Your task to perform on an android device: toggle priority inbox in the gmail app Image 0: 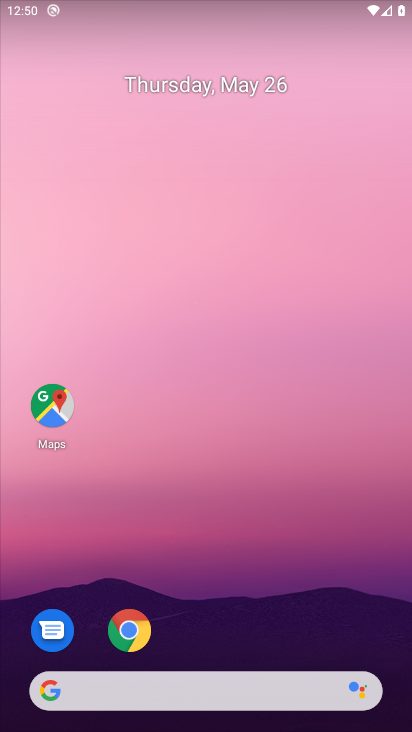
Step 0: press home button
Your task to perform on an android device: toggle priority inbox in the gmail app Image 1: 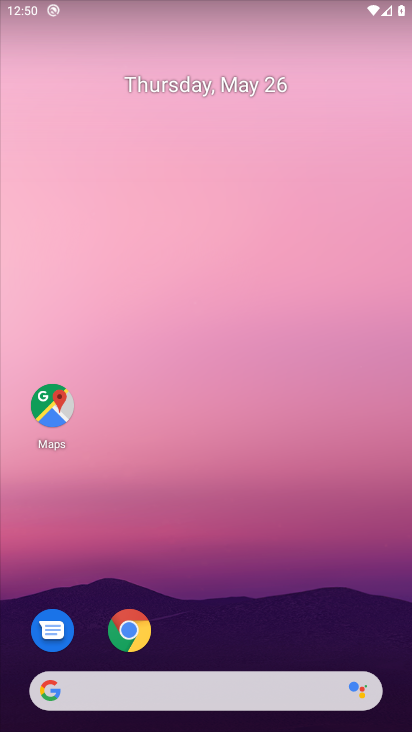
Step 1: drag from (228, 599) to (225, 7)
Your task to perform on an android device: toggle priority inbox in the gmail app Image 2: 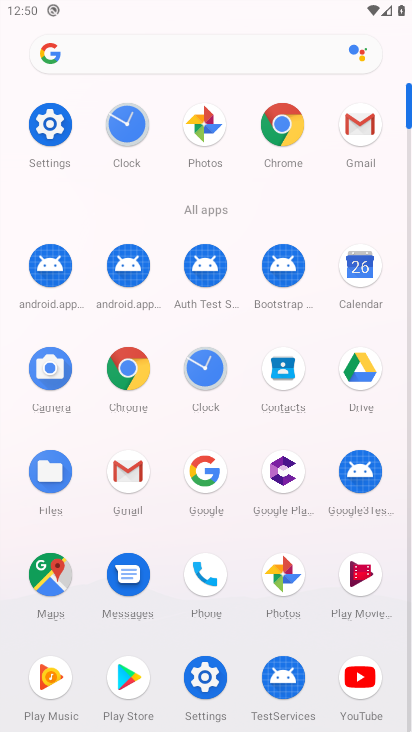
Step 2: click (349, 137)
Your task to perform on an android device: toggle priority inbox in the gmail app Image 3: 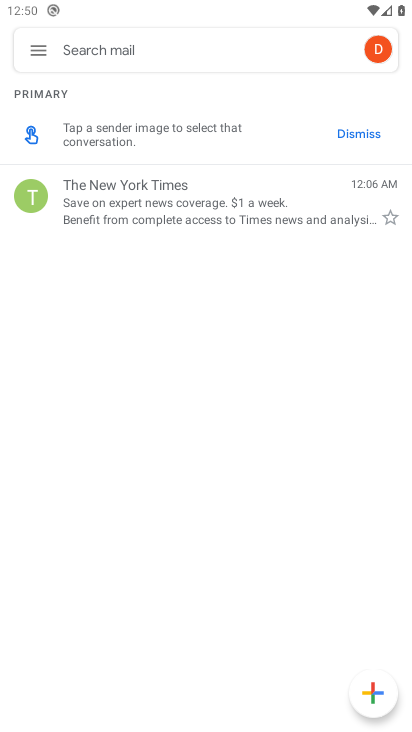
Step 3: click (39, 54)
Your task to perform on an android device: toggle priority inbox in the gmail app Image 4: 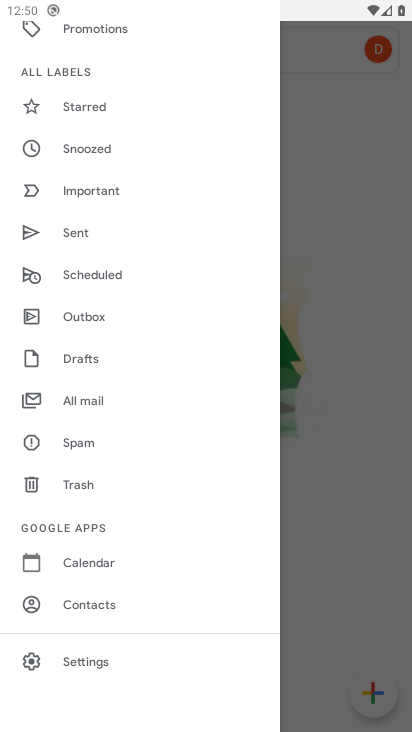
Step 4: click (90, 662)
Your task to perform on an android device: toggle priority inbox in the gmail app Image 5: 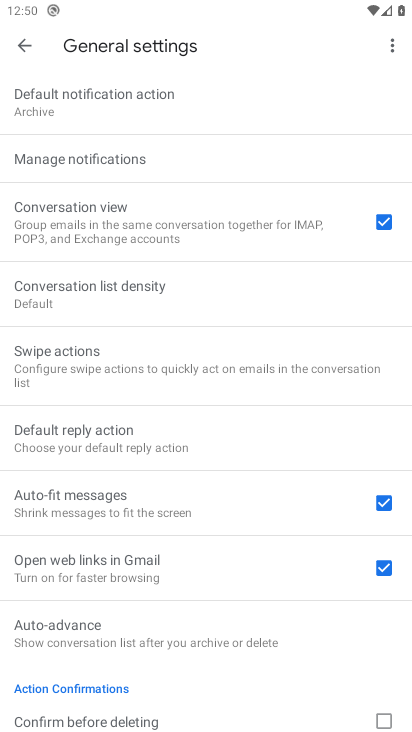
Step 5: click (24, 40)
Your task to perform on an android device: toggle priority inbox in the gmail app Image 6: 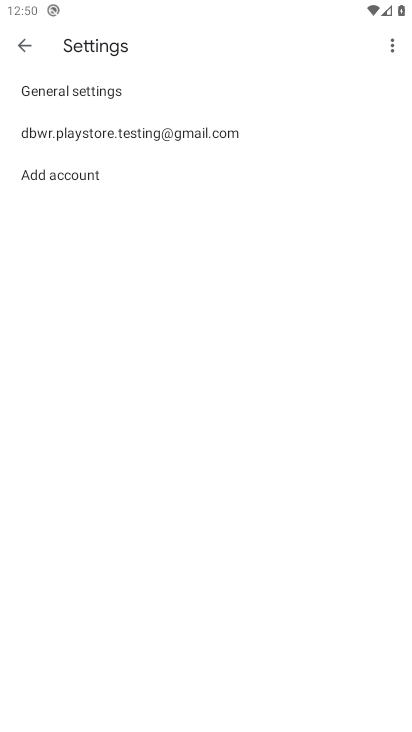
Step 6: click (98, 138)
Your task to perform on an android device: toggle priority inbox in the gmail app Image 7: 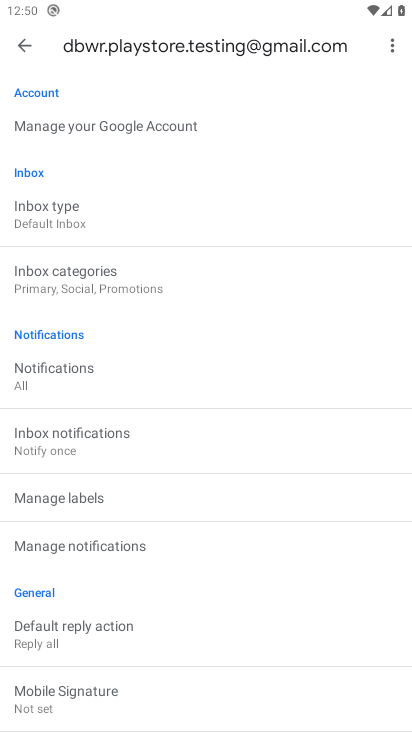
Step 7: click (88, 213)
Your task to perform on an android device: toggle priority inbox in the gmail app Image 8: 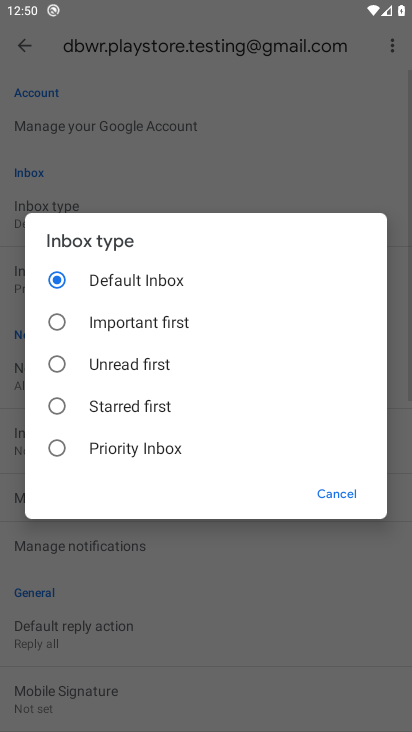
Step 8: click (78, 454)
Your task to perform on an android device: toggle priority inbox in the gmail app Image 9: 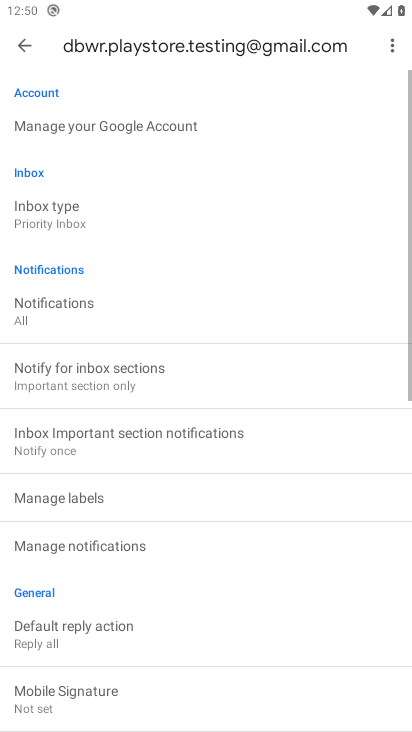
Step 9: task complete